Your task to perform on an android device: delete browsing data in the chrome app Image 0: 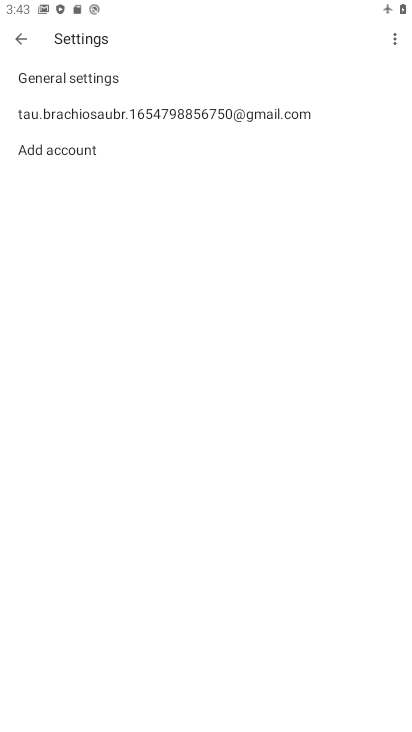
Step 0: press home button
Your task to perform on an android device: delete browsing data in the chrome app Image 1: 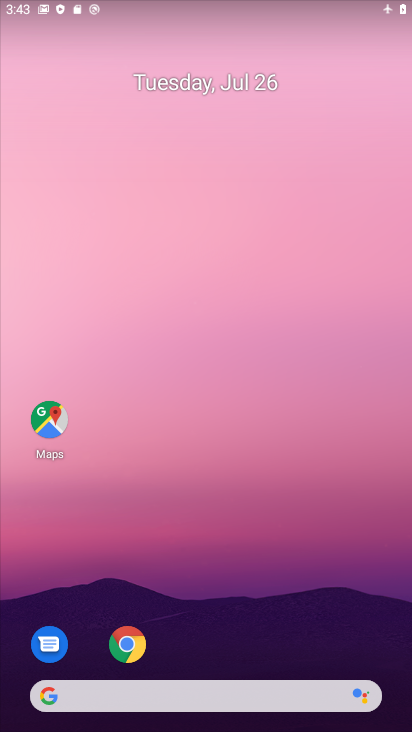
Step 1: click (128, 647)
Your task to perform on an android device: delete browsing data in the chrome app Image 2: 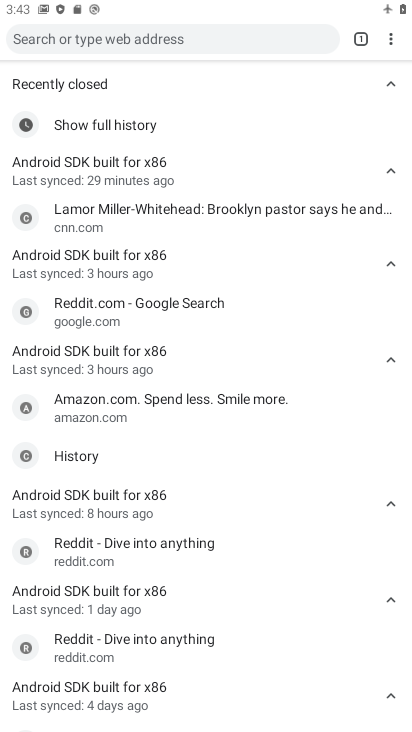
Step 2: click (391, 46)
Your task to perform on an android device: delete browsing data in the chrome app Image 3: 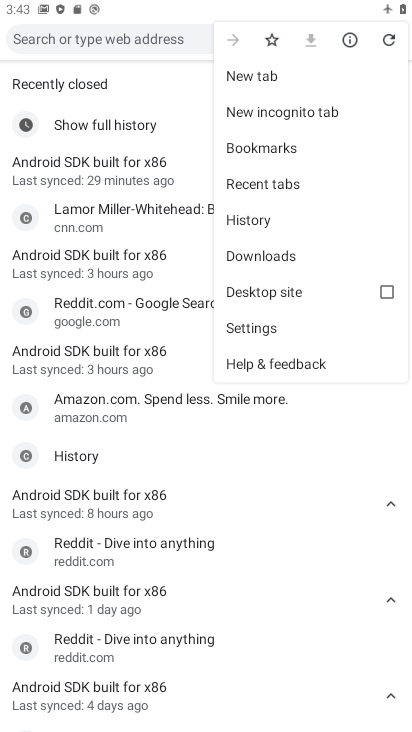
Step 3: click (253, 222)
Your task to perform on an android device: delete browsing data in the chrome app Image 4: 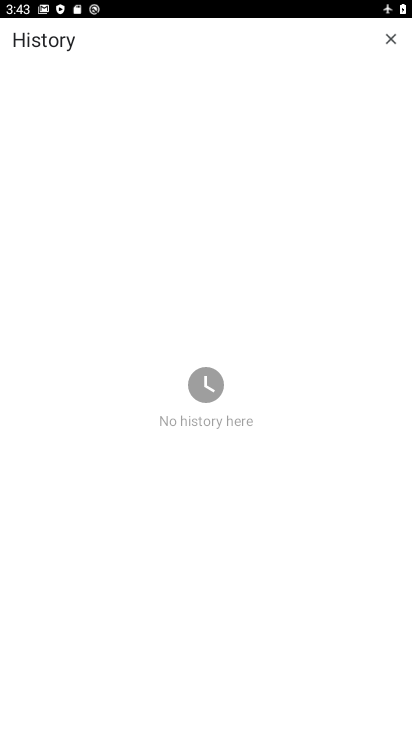
Step 4: task complete